Your task to perform on an android device: change the clock display to analog Image 0: 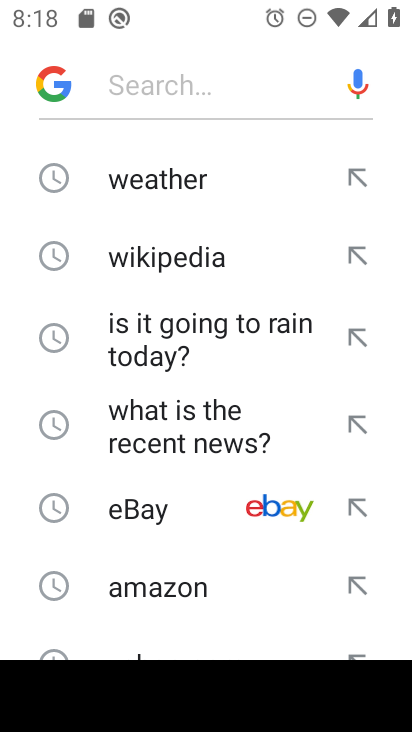
Step 0: press home button
Your task to perform on an android device: change the clock display to analog Image 1: 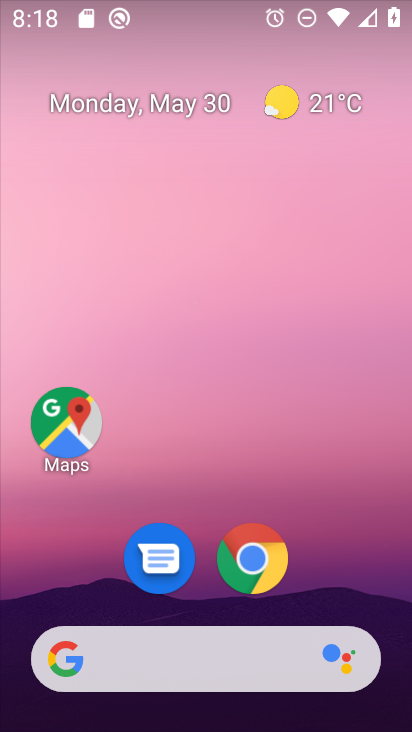
Step 1: drag from (322, 510) to (240, 153)
Your task to perform on an android device: change the clock display to analog Image 2: 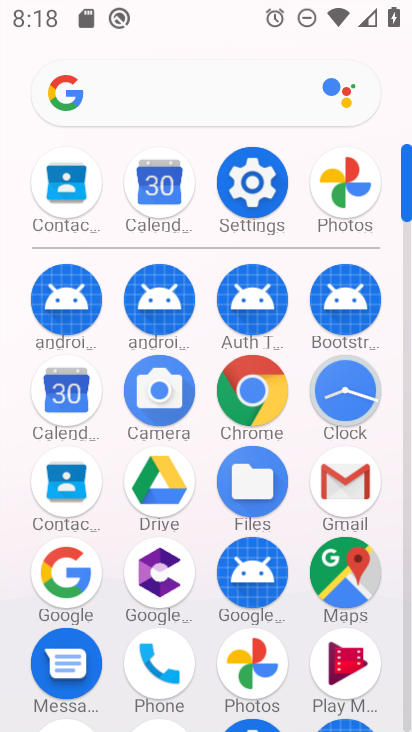
Step 2: click (322, 395)
Your task to perform on an android device: change the clock display to analog Image 3: 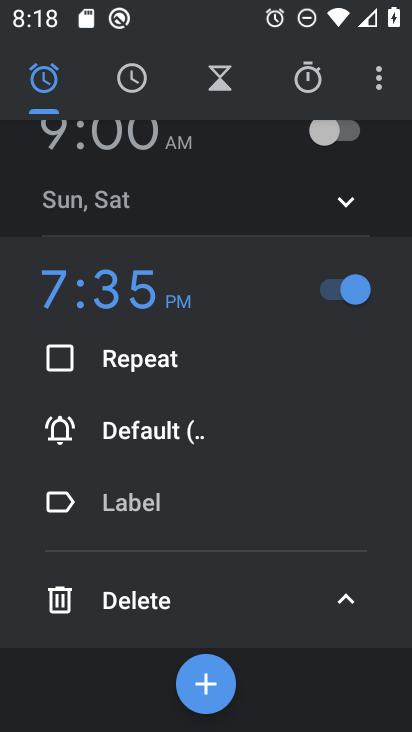
Step 3: click (379, 80)
Your task to perform on an android device: change the clock display to analog Image 4: 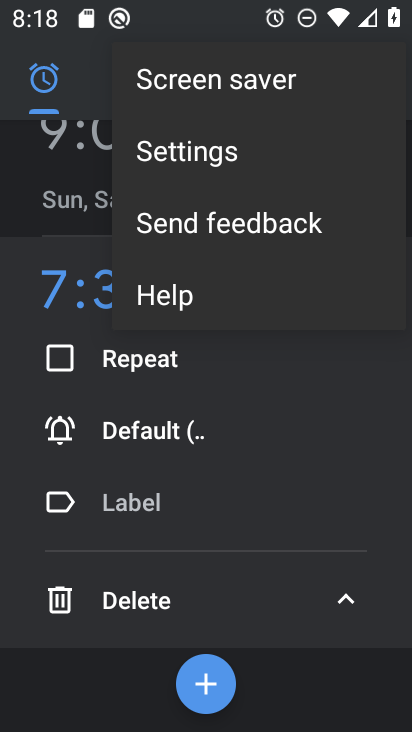
Step 4: click (218, 140)
Your task to perform on an android device: change the clock display to analog Image 5: 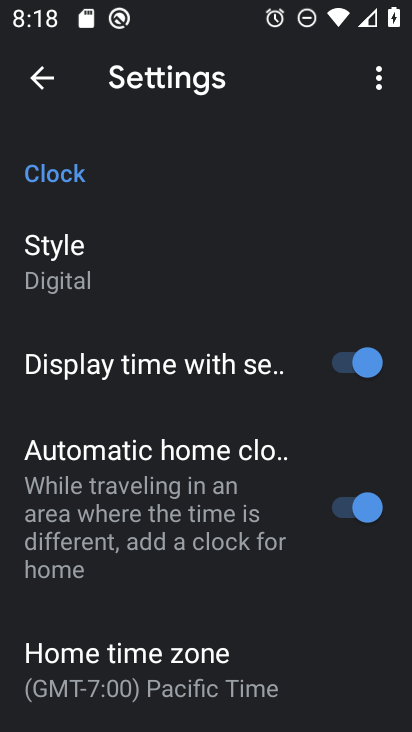
Step 5: click (69, 254)
Your task to perform on an android device: change the clock display to analog Image 6: 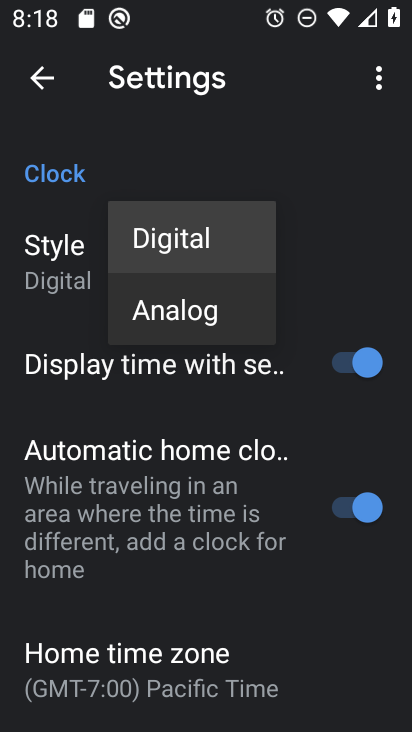
Step 6: click (158, 317)
Your task to perform on an android device: change the clock display to analog Image 7: 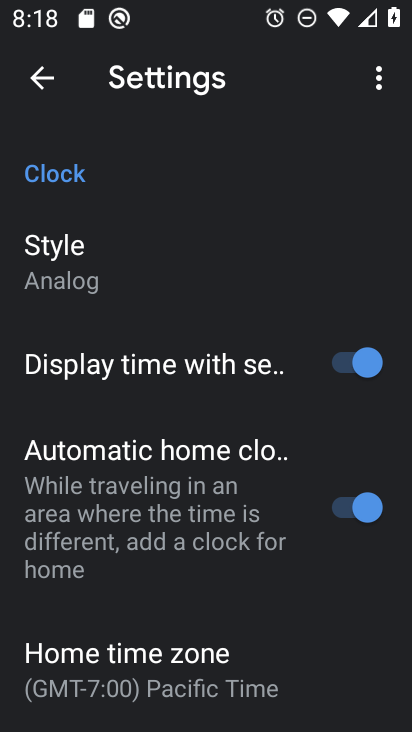
Step 7: task complete